Your task to perform on an android device: set the stopwatch Image 0: 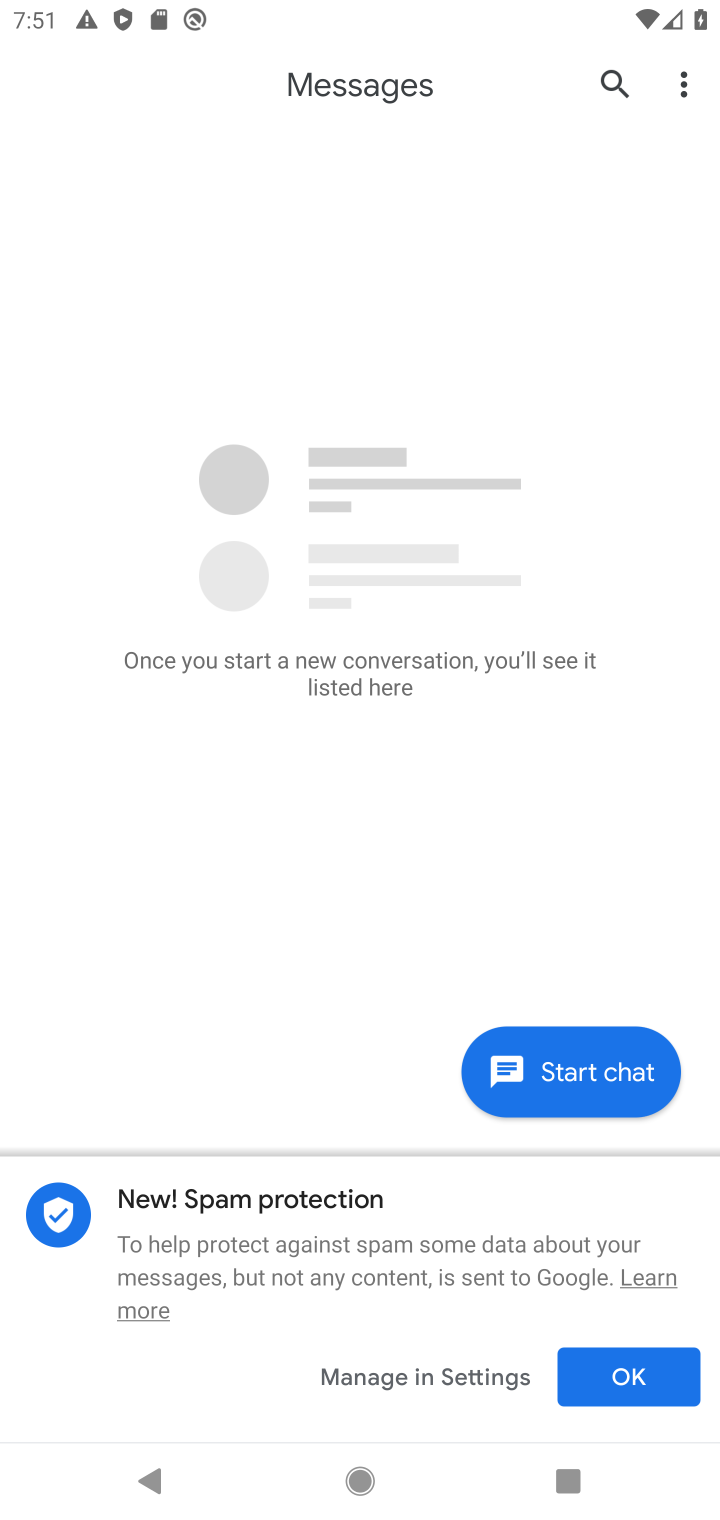
Step 0: press home button
Your task to perform on an android device: set the stopwatch Image 1: 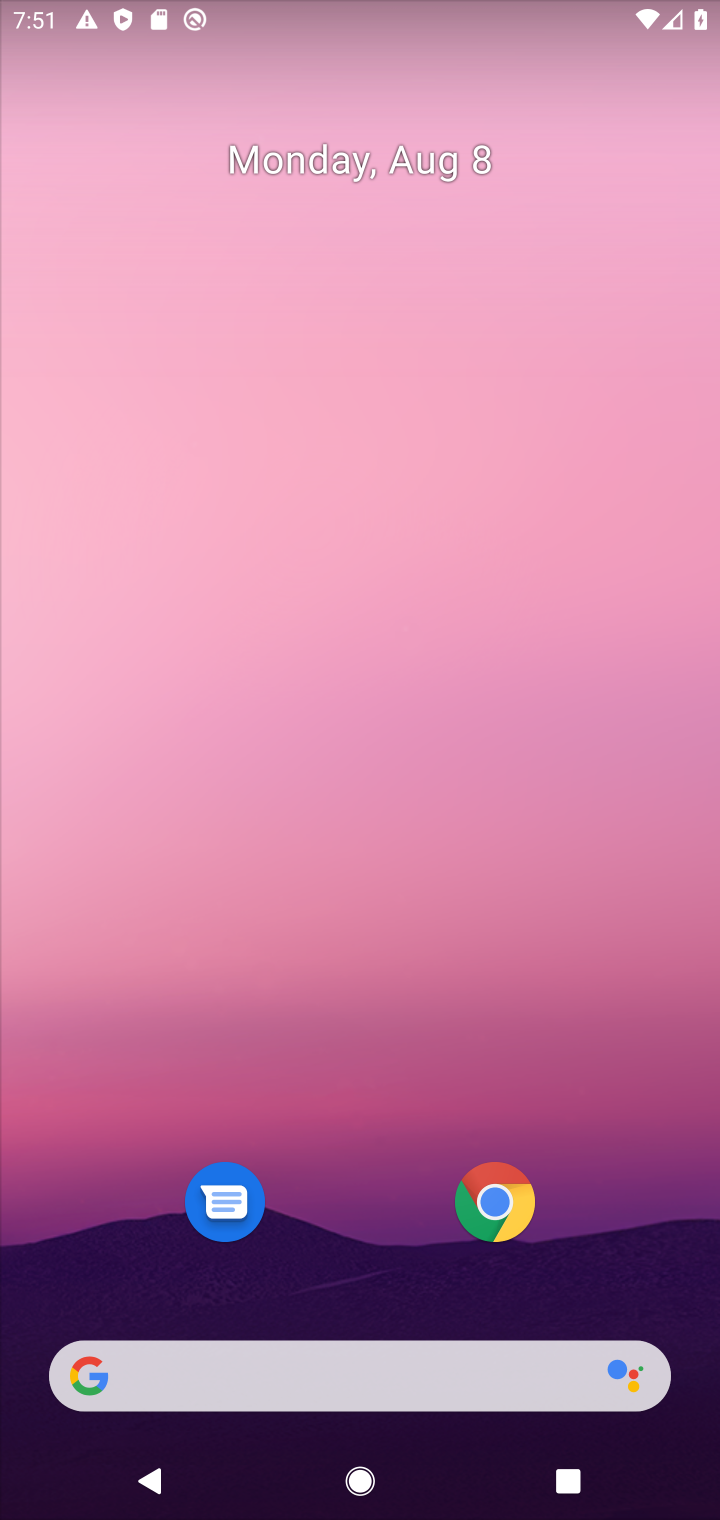
Step 1: drag from (381, 1169) to (654, 2)
Your task to perform on an android device: set the stopwatch Image 2: 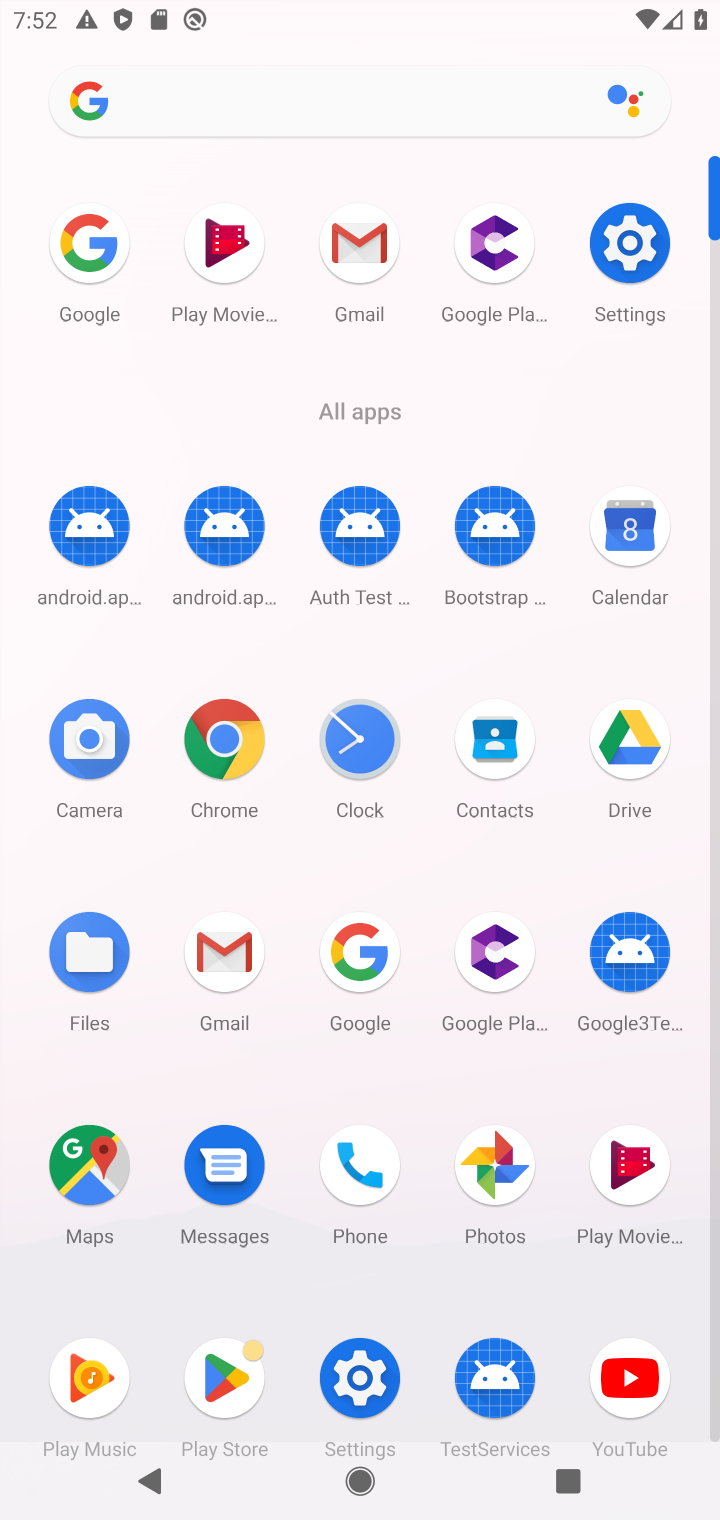
Step 2: click (357, 757)
Your task to perform on an android device: set the stopwatch Image 3: 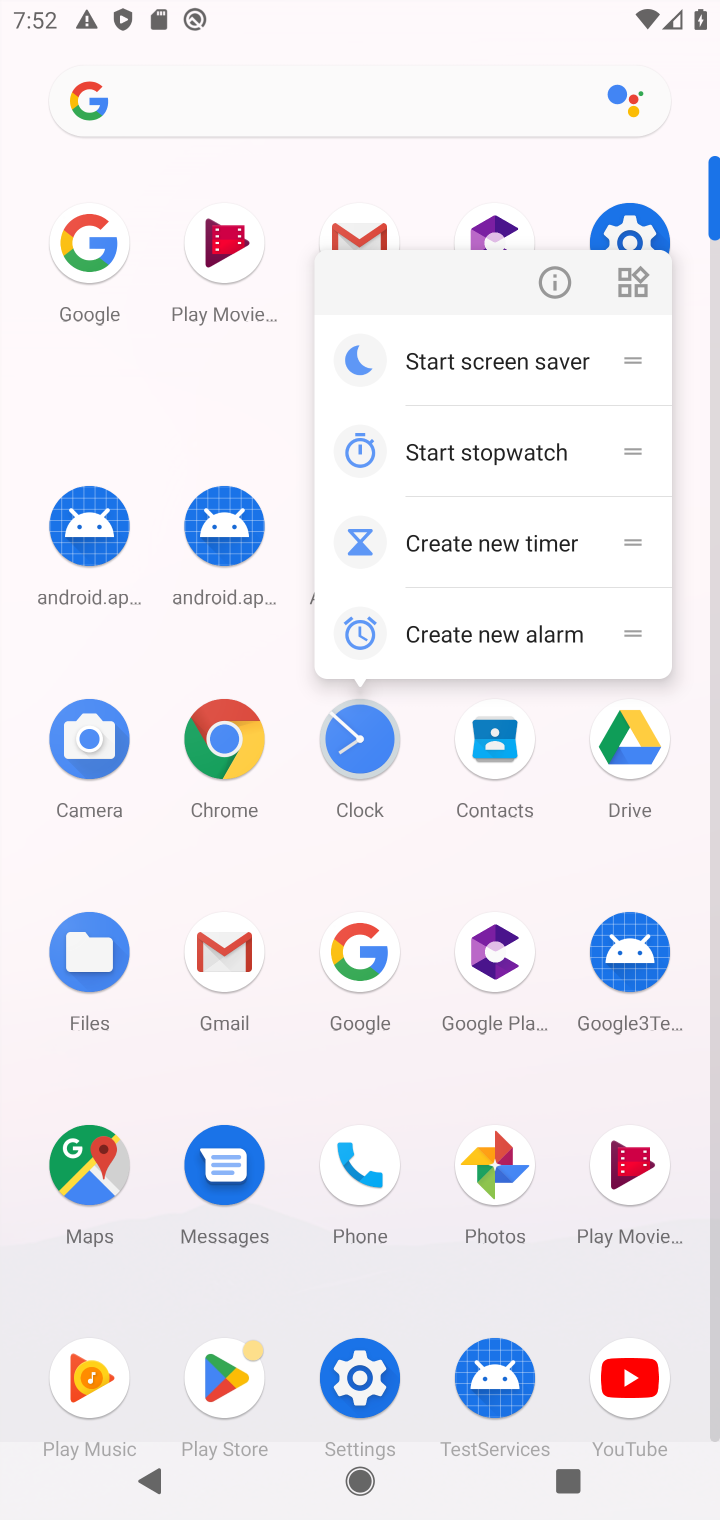
Step 3: click (368, 821)
Your task to perform on an android device: set the stopwatch Image 4: 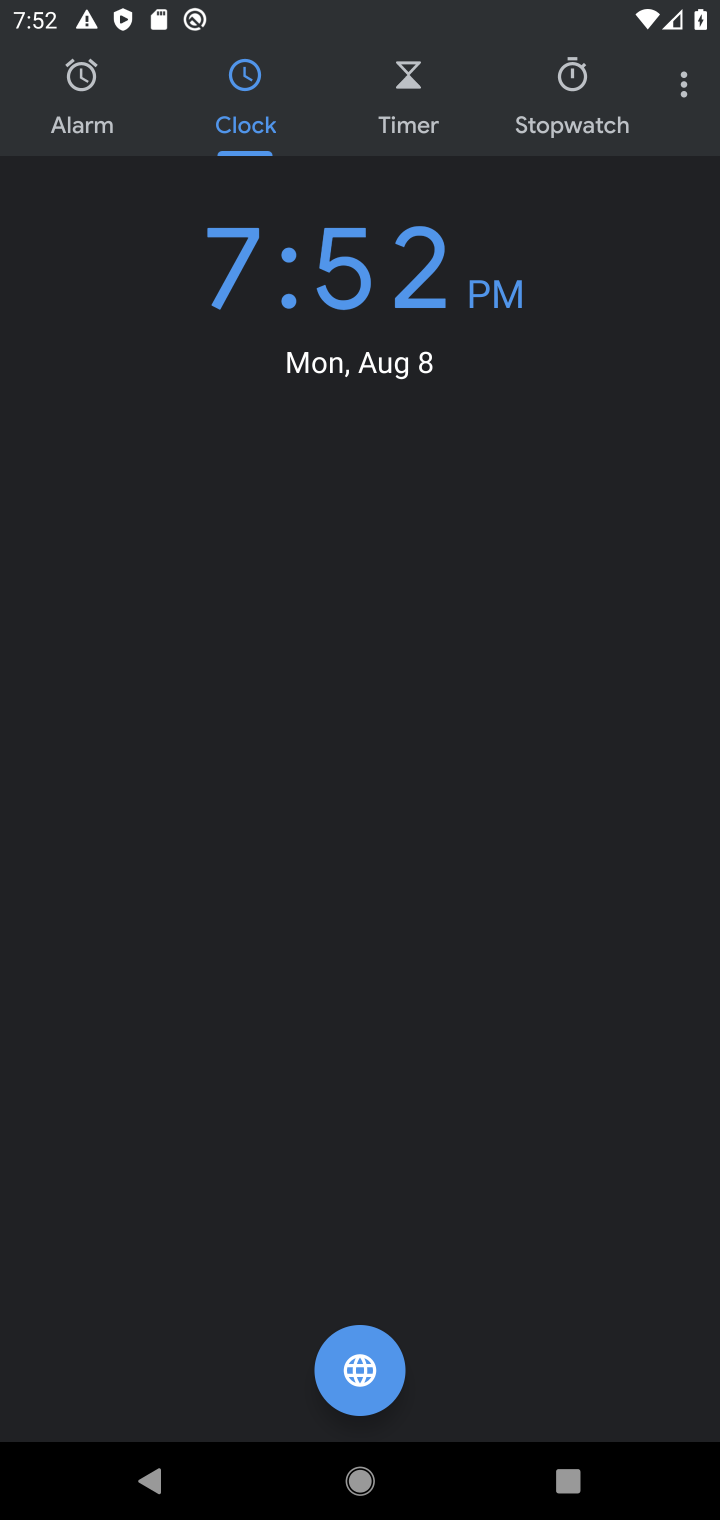
Step 4: click (547, 141)
Your task to perform on an android device: set the stopwatch Image 5: 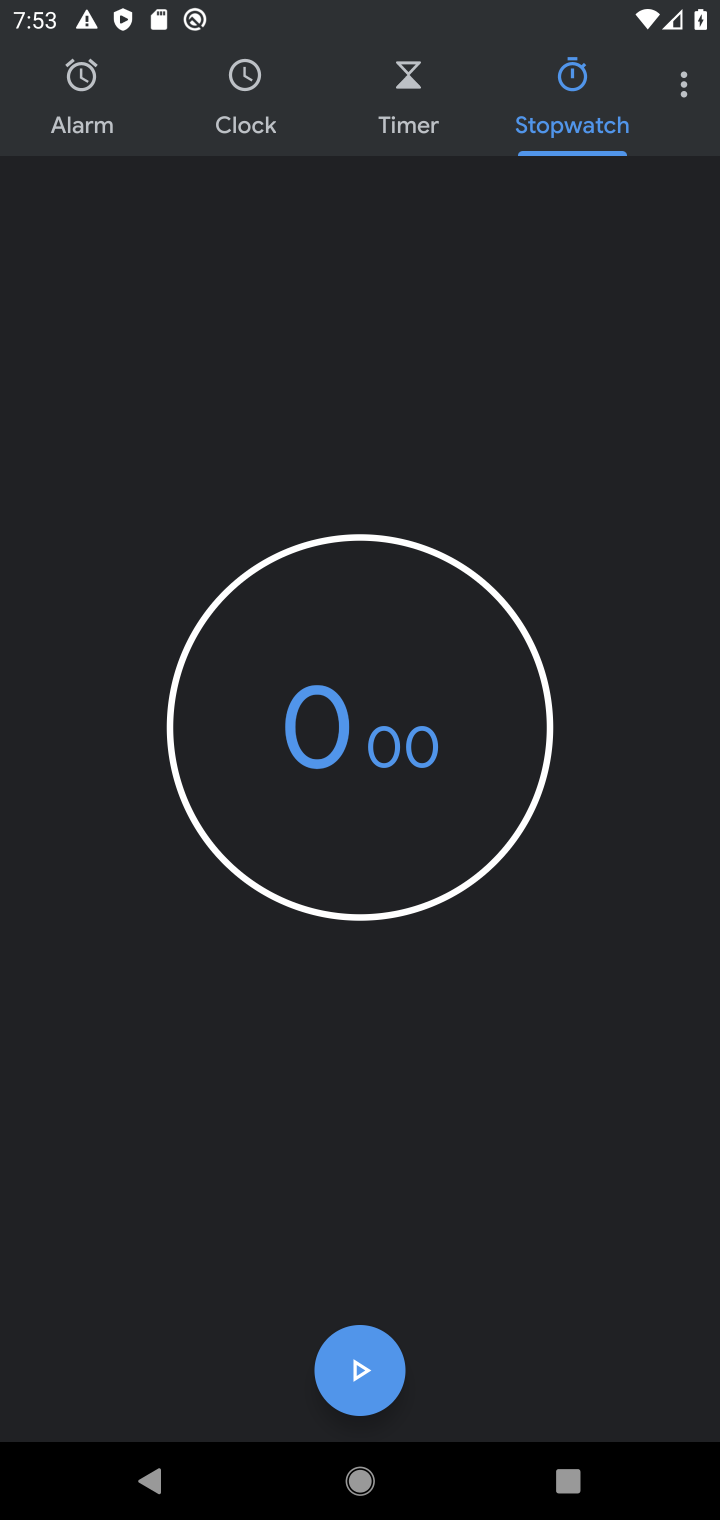
Step 5: click (372, 1384)
Your task to perform on an android device: set the stopwatch Image 6: 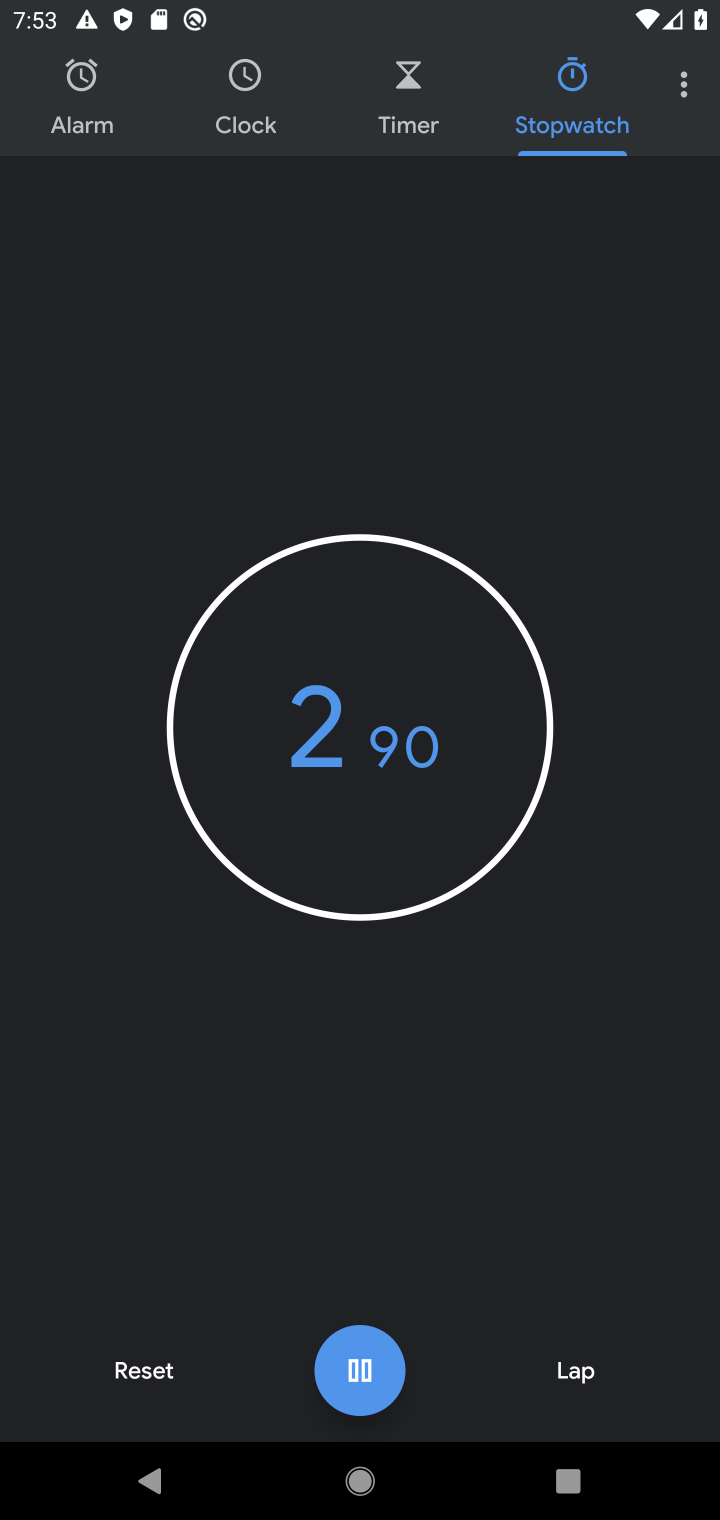
Step 6: task complete